Your task to perform on an android device: How much does a 3 bedroom apartment rent for in Denver? Image 0: 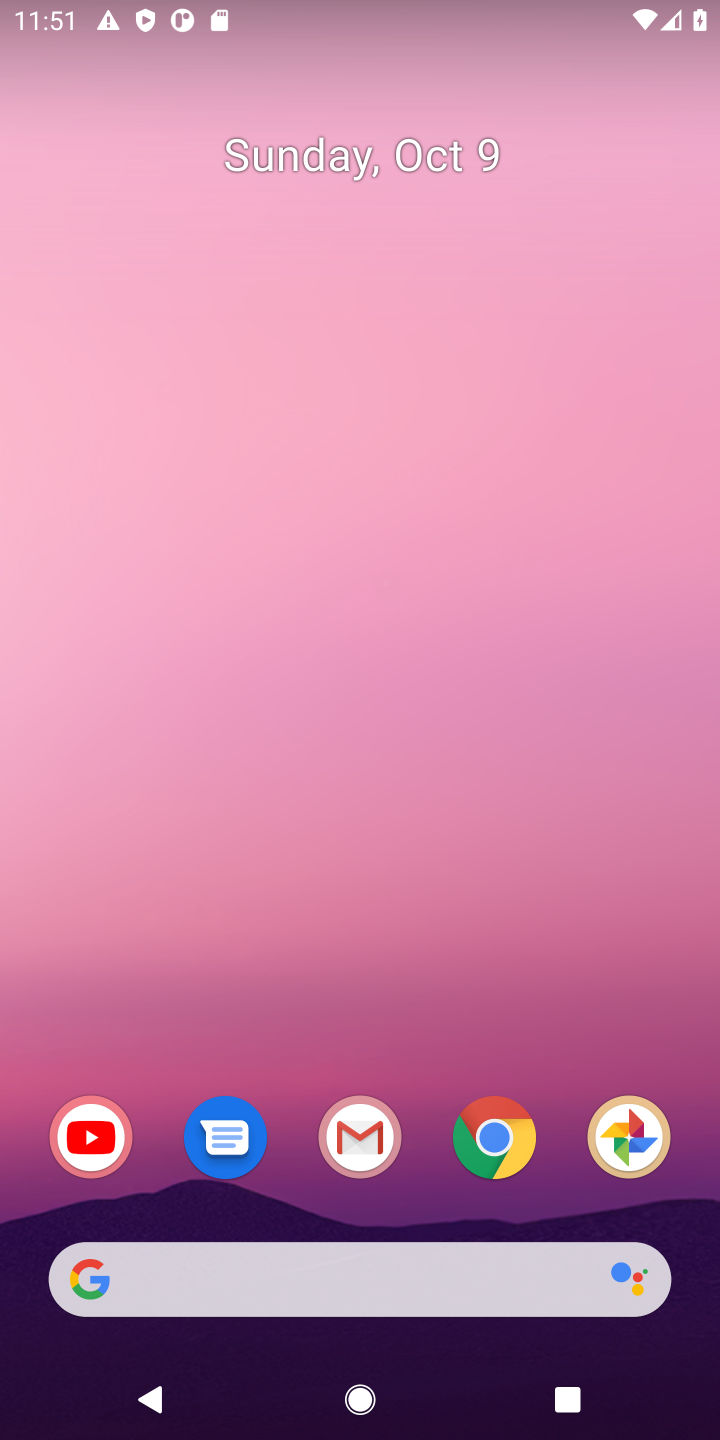
Step 0: drag from (410, 1021) to (44, 8)
Your task to perform on an android device: How much does a 3 bedroom apartment rent for in Denver? Image 1: 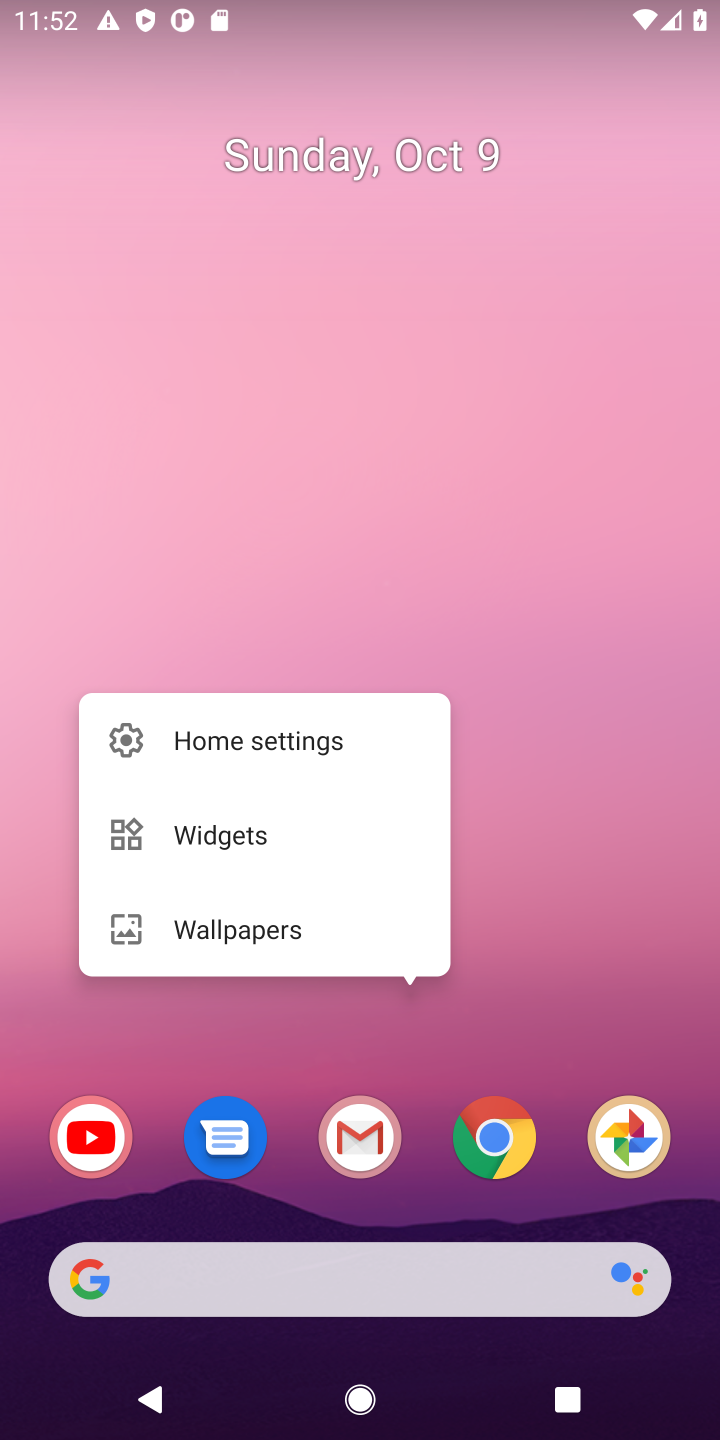
Step 1: click (521, 1024)
Your task to perform on an android device: How much does a 3 bedroom apartment rent for in Denver? Image 2: 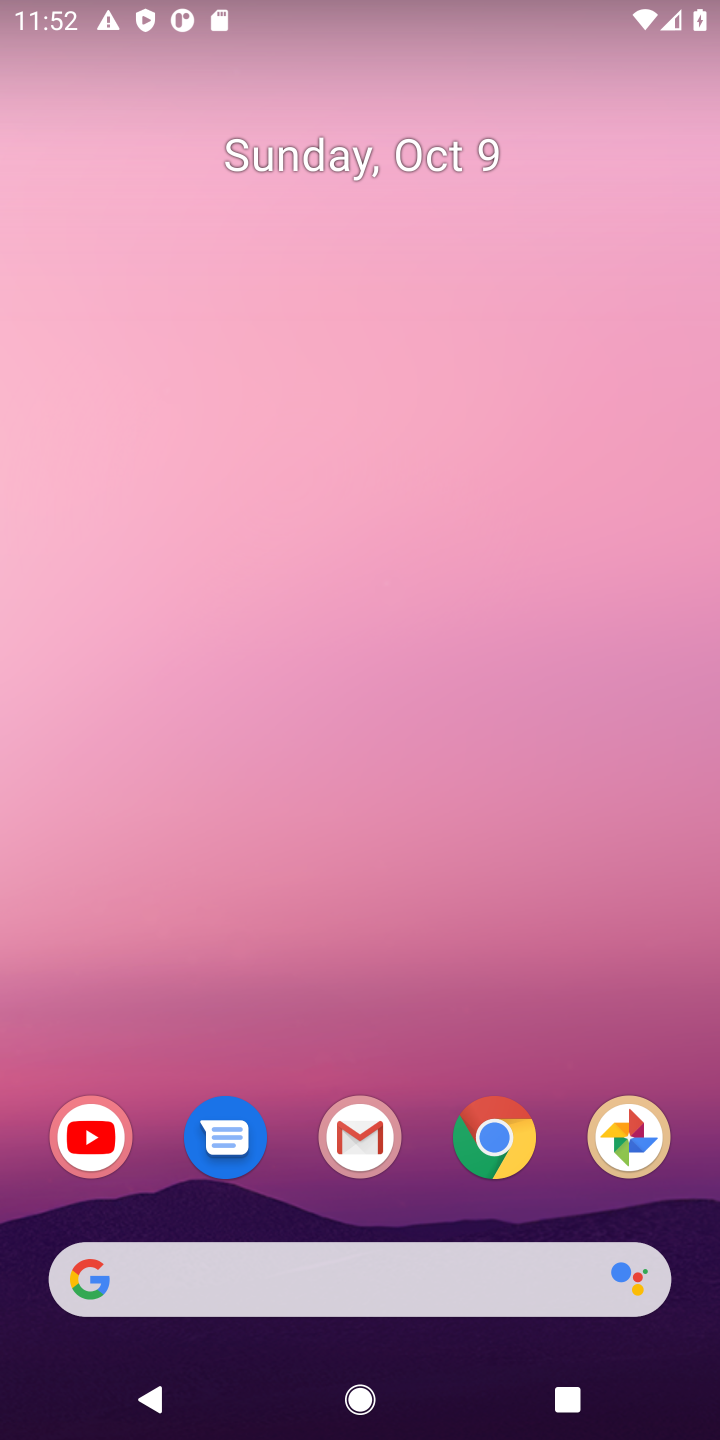
Step 2: drag from (556, 1056) to (457, 66)
Your task to perform on an android device: How much does a 3 bedroom apartment rent for in Denver? Image 3: 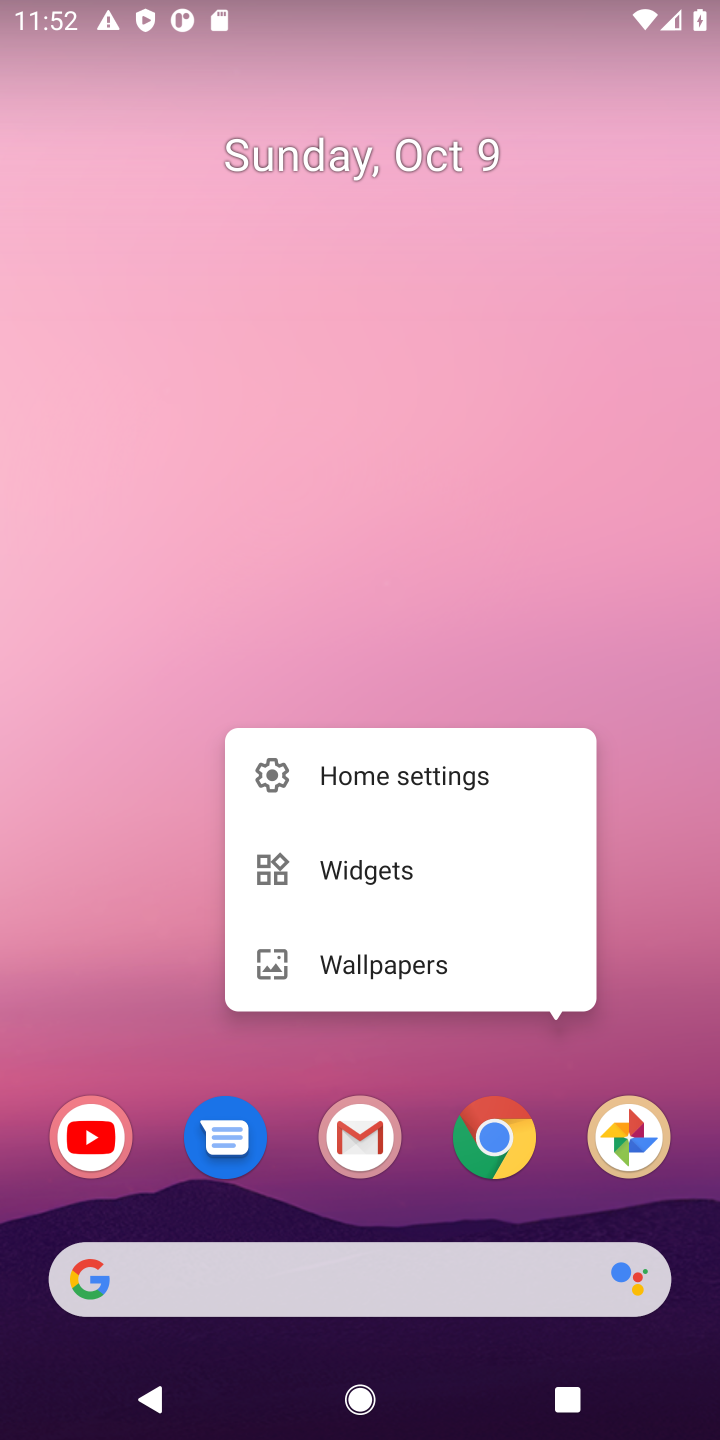
Step 3: click (624, 398)
Your task to perform on an android device: How much does a 3 bedroom apartment rent for in Denver? Image 4: 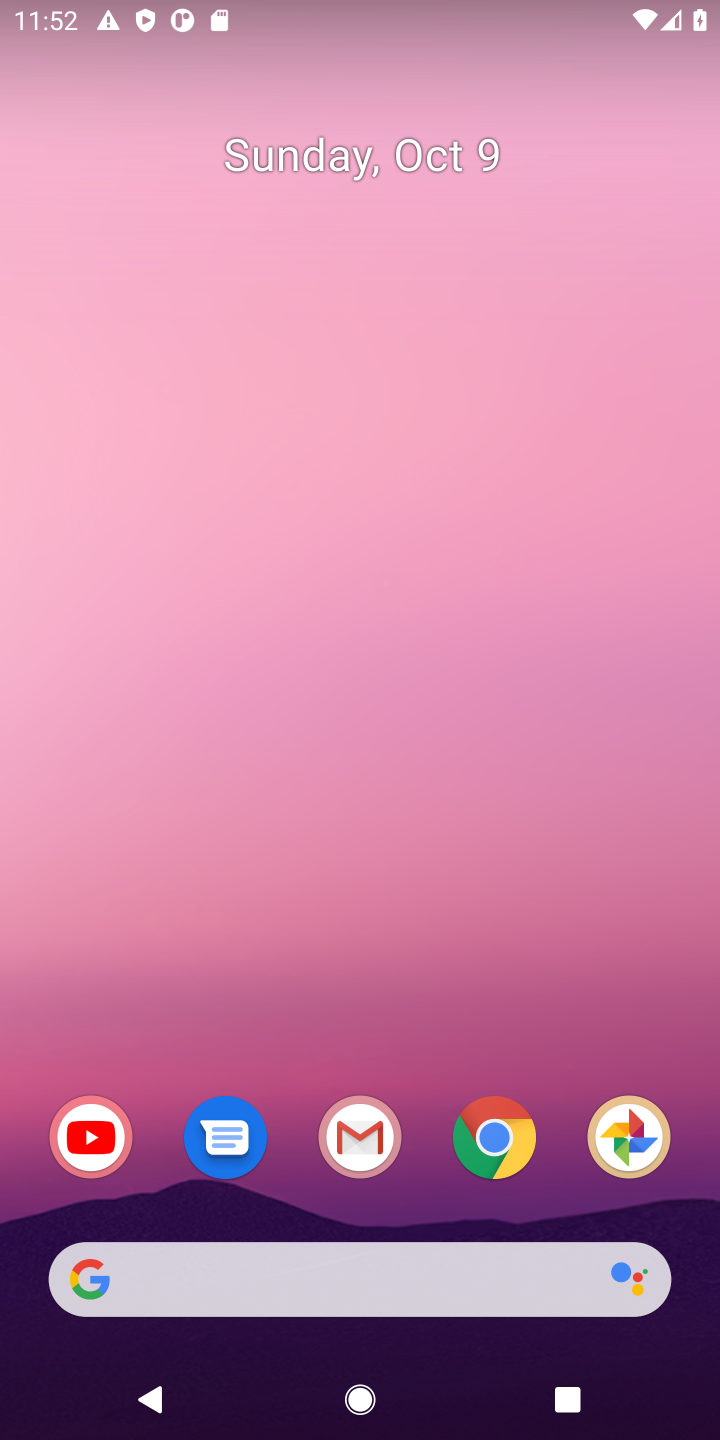
Step 4: drag from (437, 1039) to (551, 175)
Your task to perform on an android device: How much does a 3 bedroom apartment rent for in Denver? Image 5: 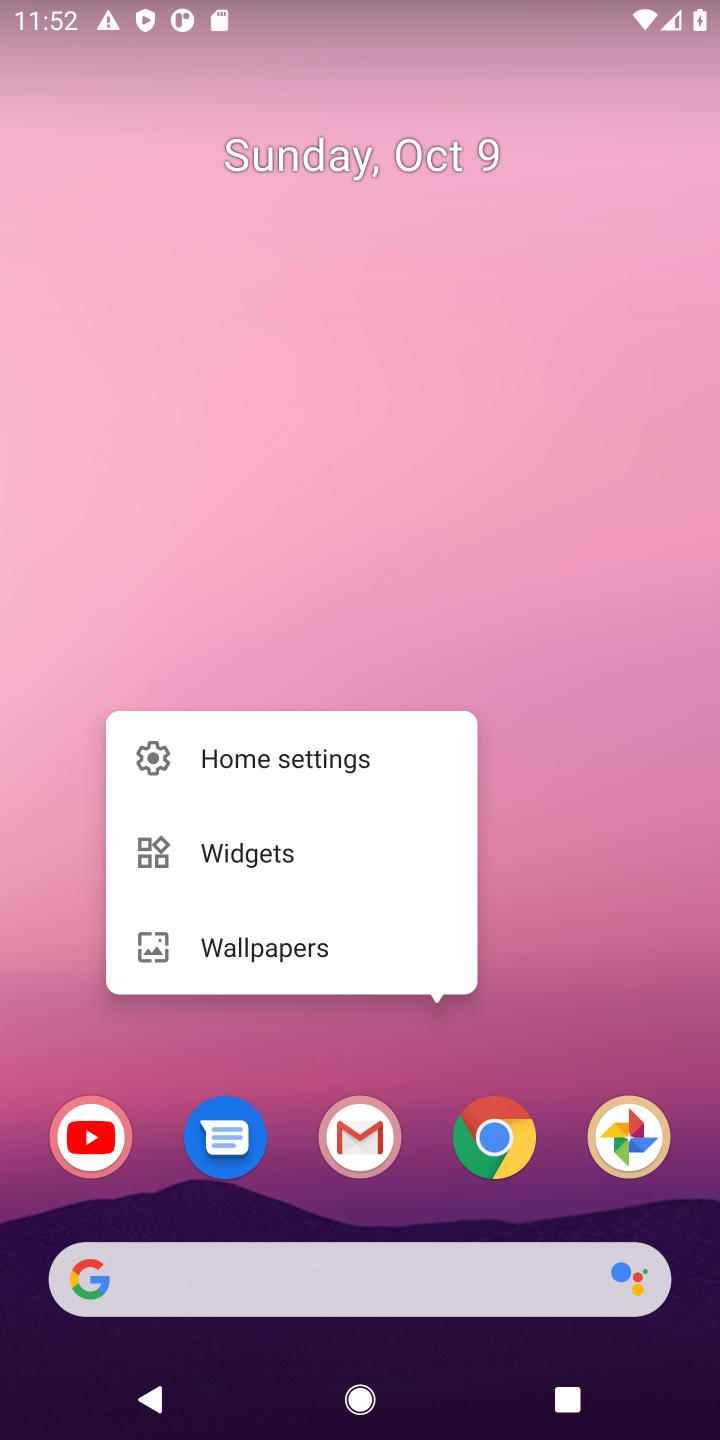
Step 5: click (525, 382)
Your task to perform on an android device: How much does a 3 bedroom apartment rent for in Denver? Image 6: 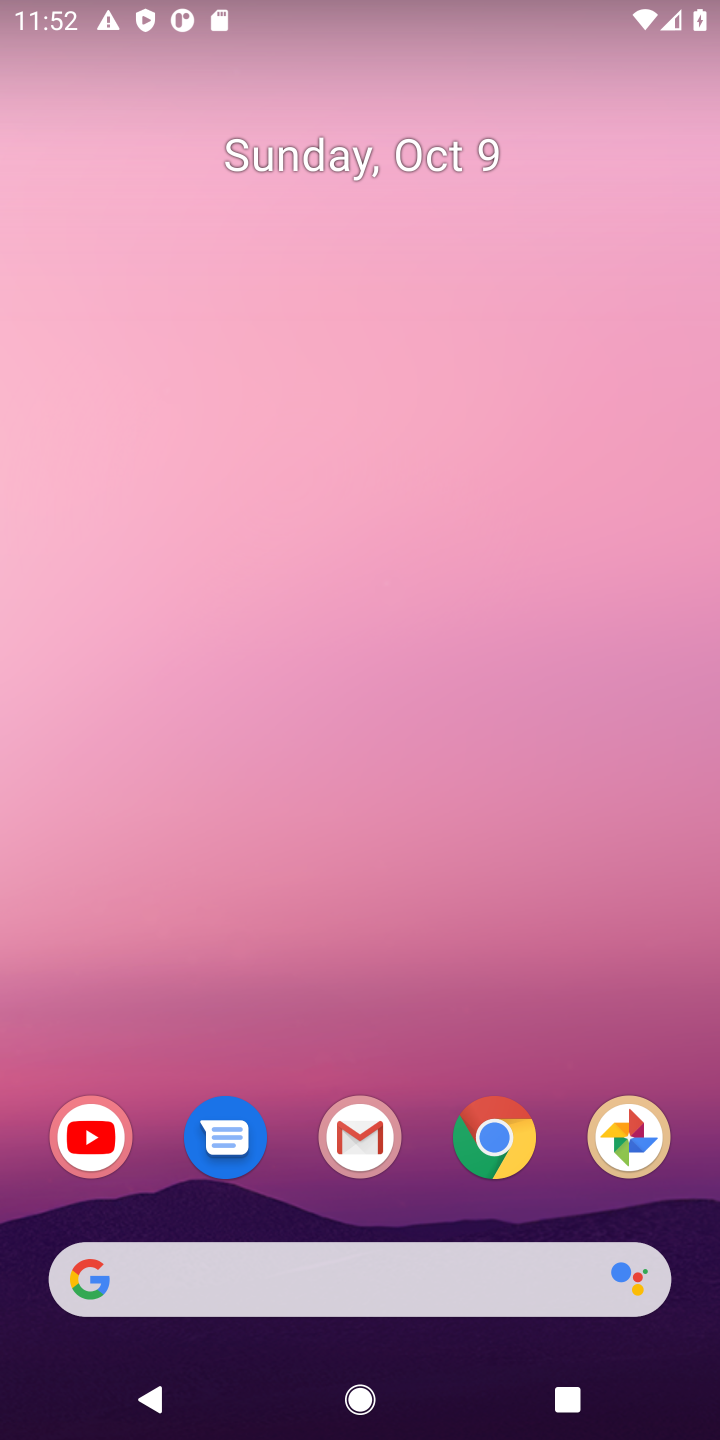
Step 6: drag from (430, 1059) to (543, 4)
Your task to perform on an android device: How much does a 3 bedroom apartment rent for in Denver? Image 7: 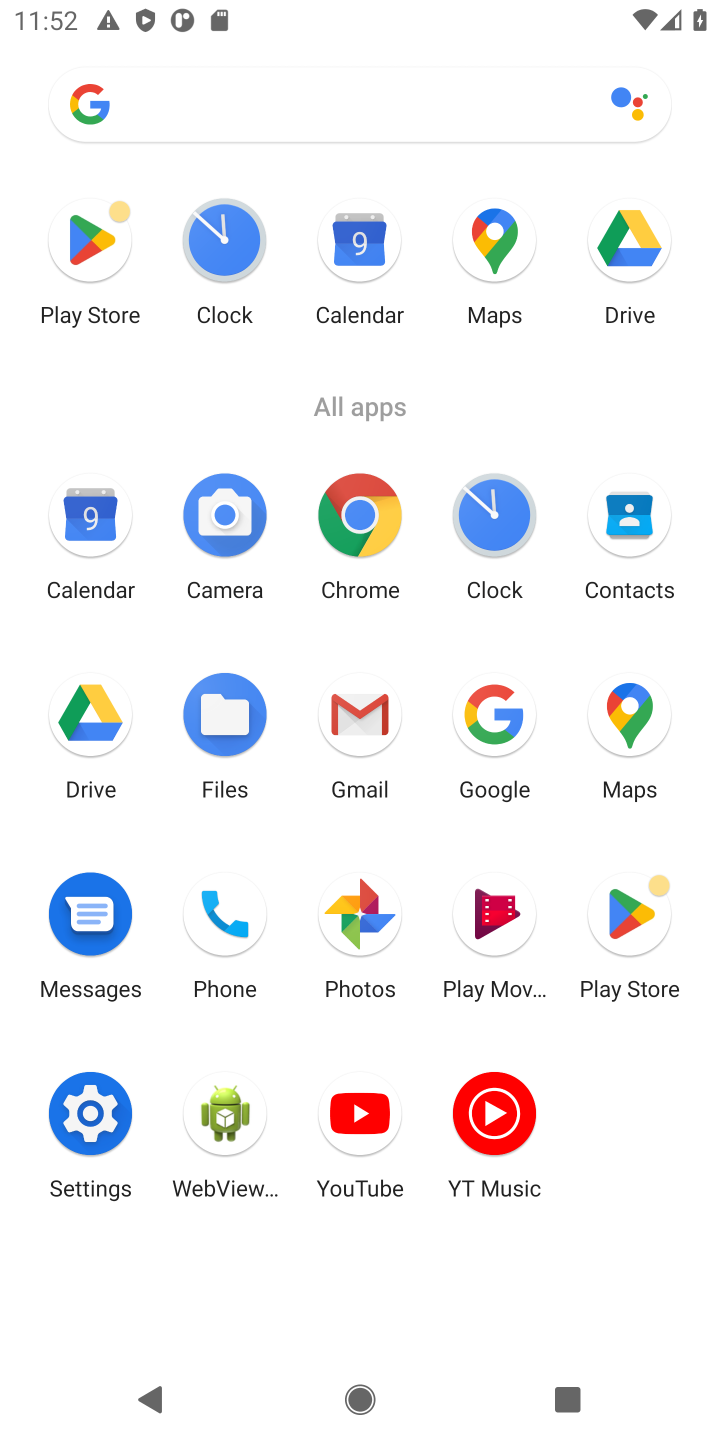
Step 7: click (369, 517)
Your task to perform on an android device: How much does a 3 bedroom apartment rent for in Denver? Image 8: 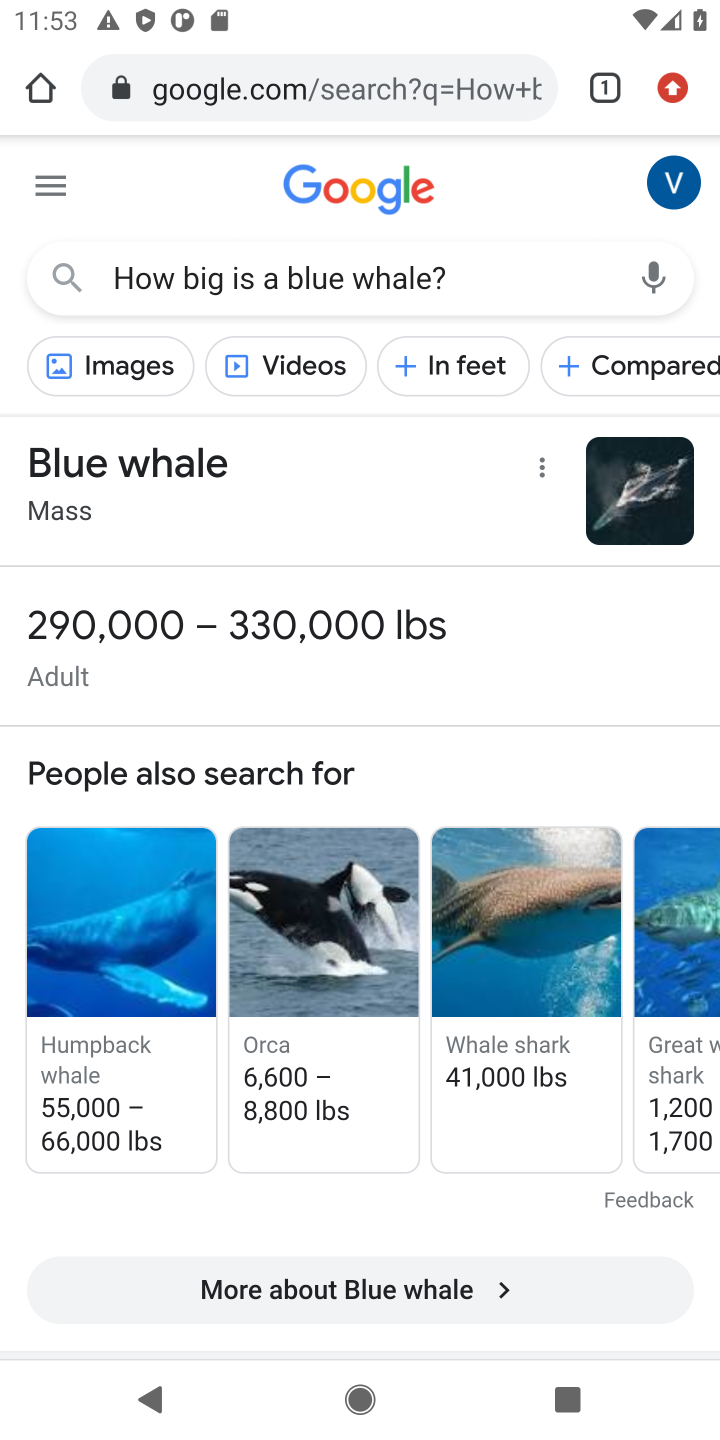
Step 8: click (440, 75)
Your task to perform on an android device: How much does a 3 bedroom apartment rent for in Denver? Image 9: 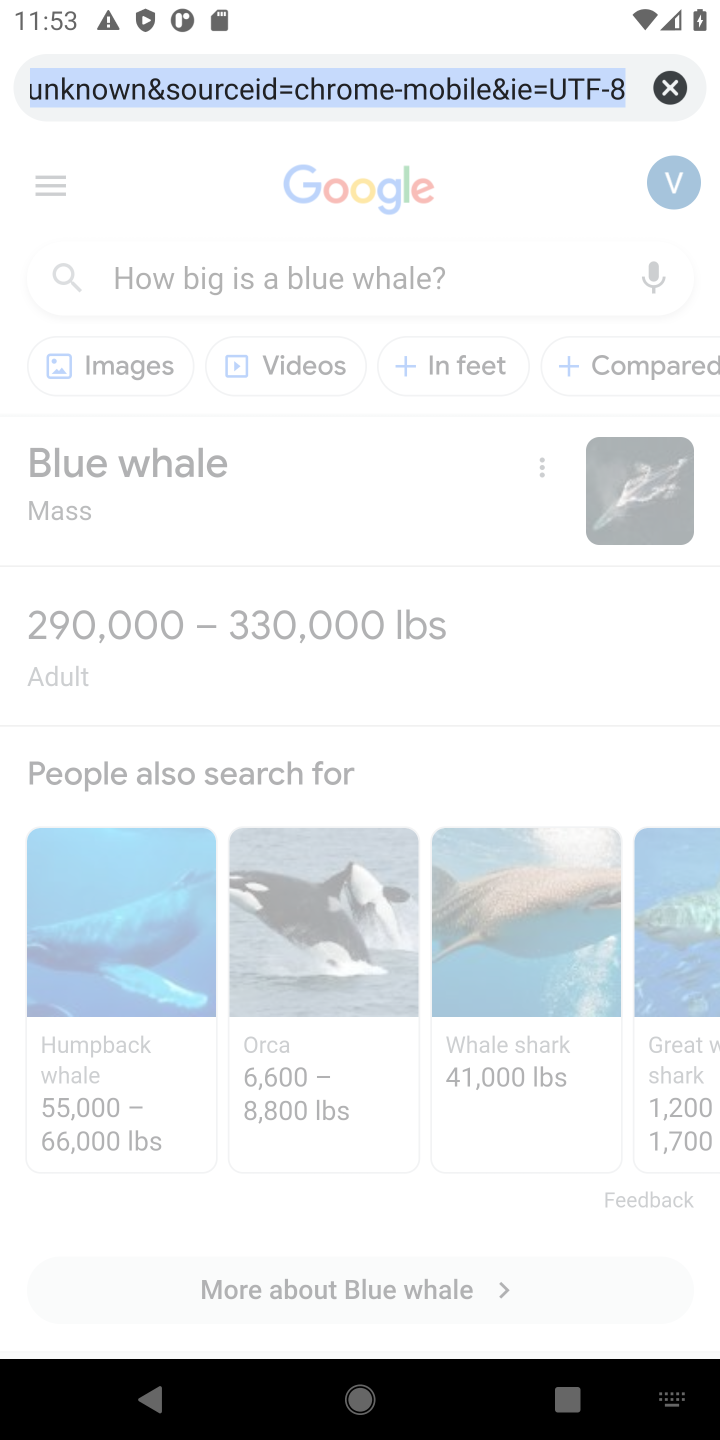
Step 9: click (659, 82)
Your task to perform on an android device: How much does a 3 bedroom apartment rent for in Denver? Image 10: 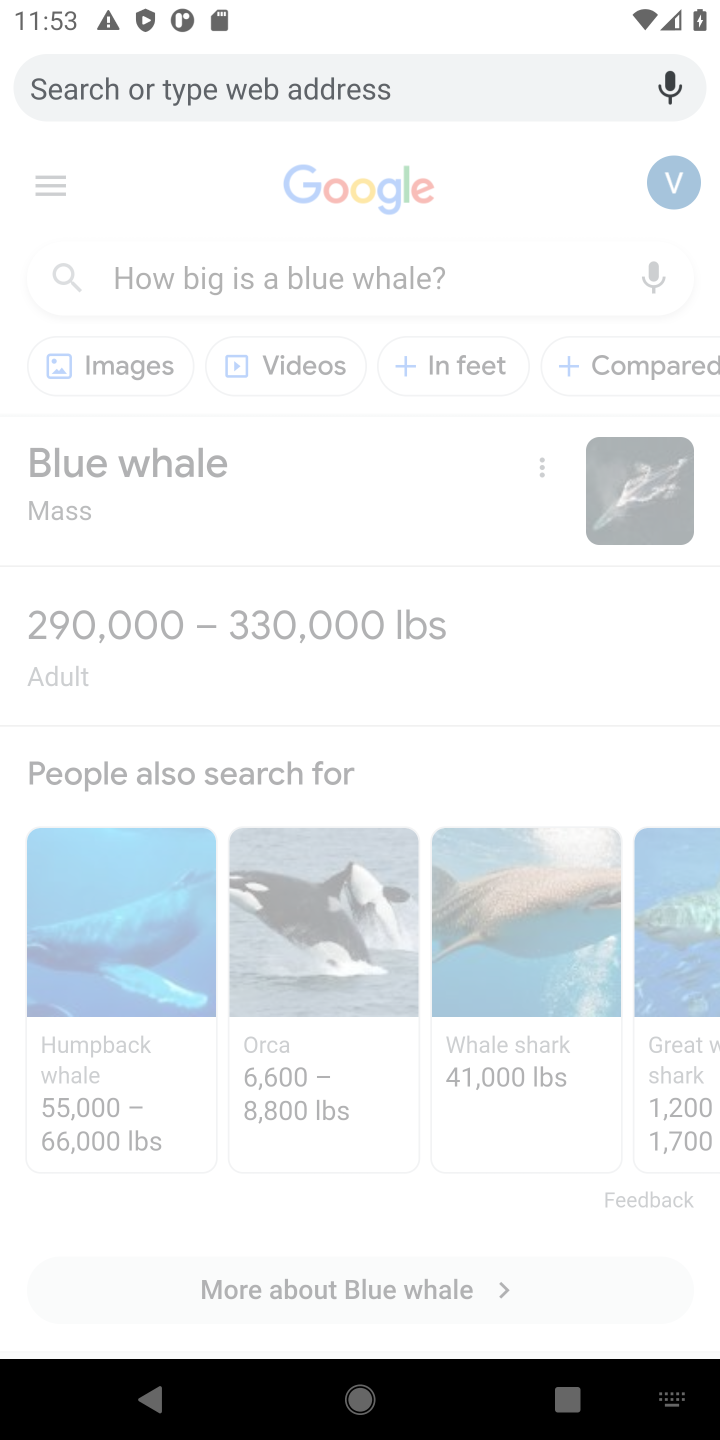
Step 10: type "How much does a 3 bedroom apartment rent for in Denver?"
Your task to perform on an android device: How much does a 3 bedroom apartment rent for in Denver? Image 11: 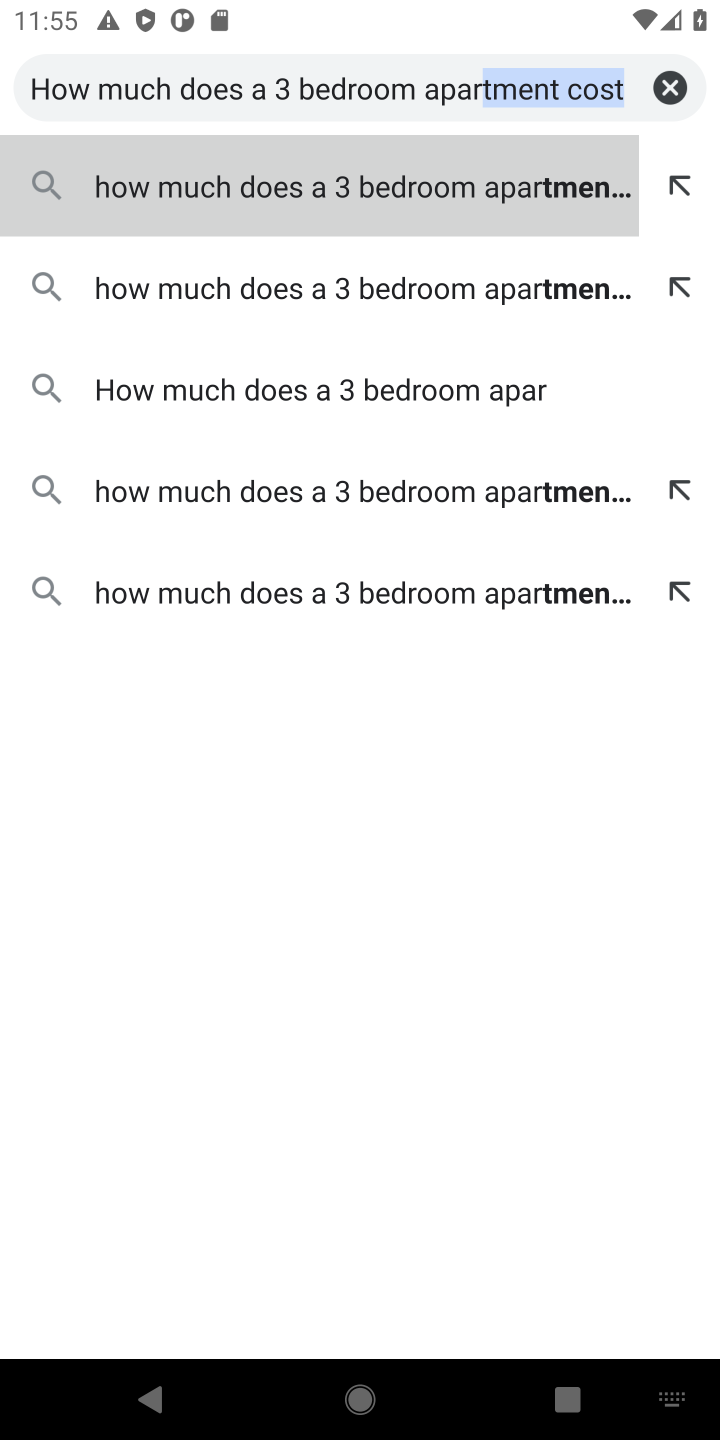
Step 11: click (352, 176)
Your task to perform on an android device: How much does a 3 bedroom apartment rent for in Denver? Image 12: 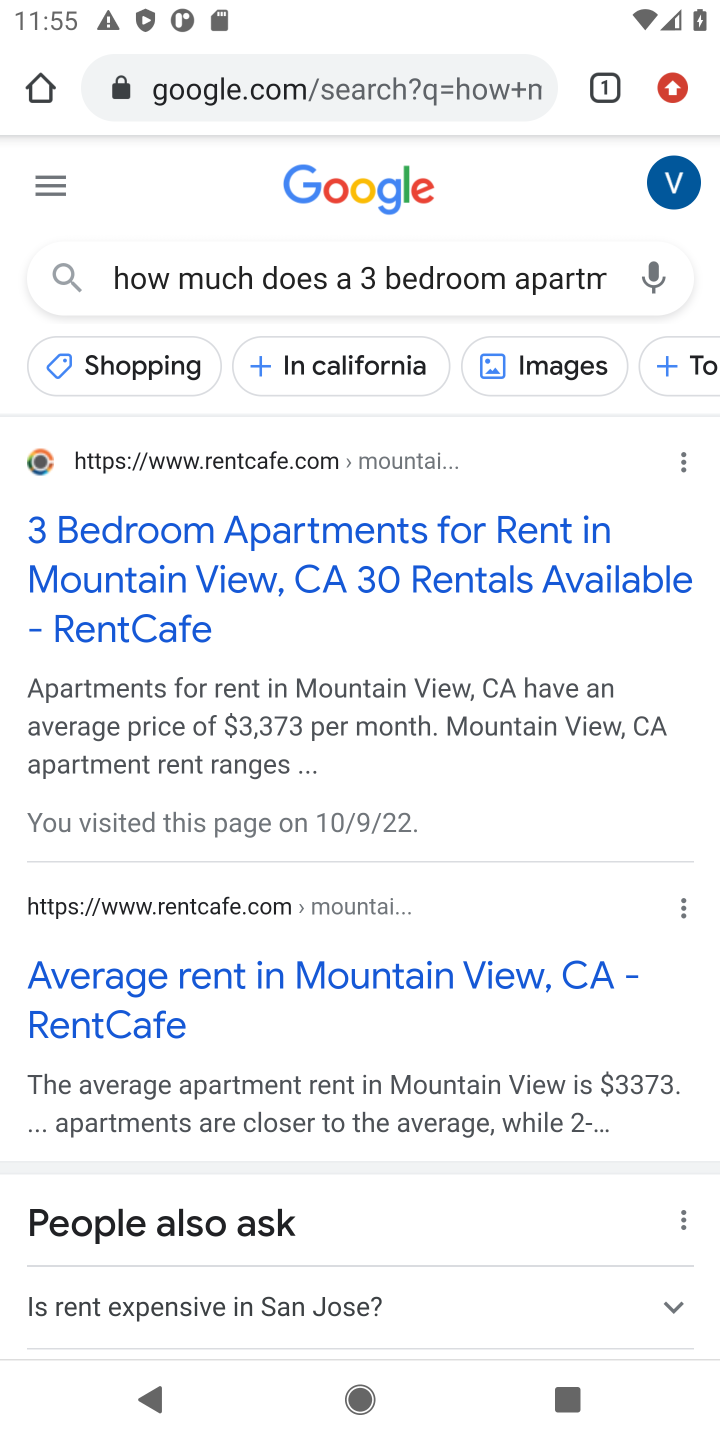
Step 12: task complete